Your task to perform on an android device: check data usage Image 0: 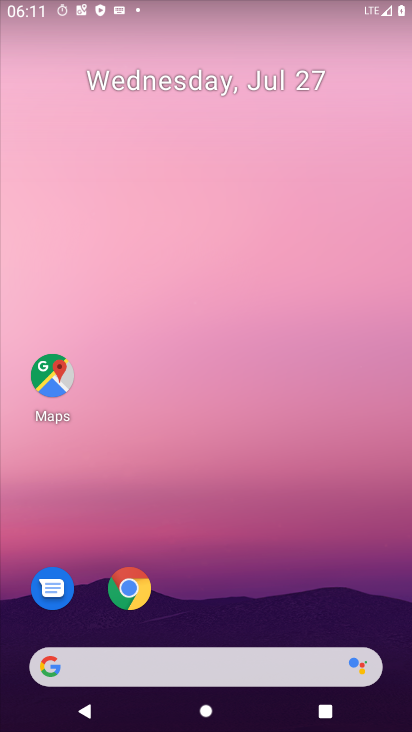
Step 0: drag from (319, 633) to (291, 5)
Your task to perform on an android device: check data usage Image 1: 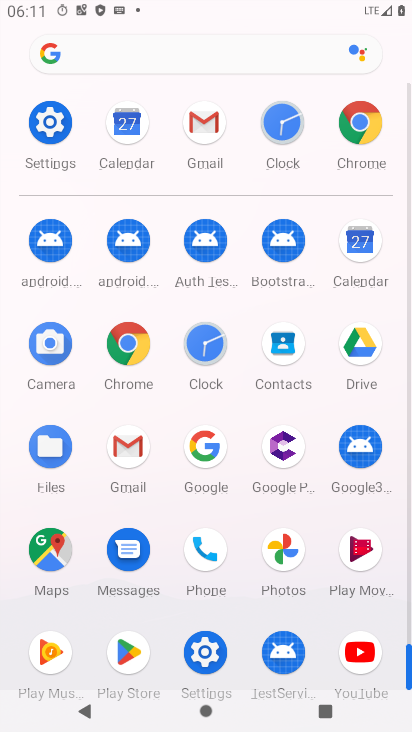
Step 1: click (48, 111)
Your task to perform on an android device: check data usage Image 2: 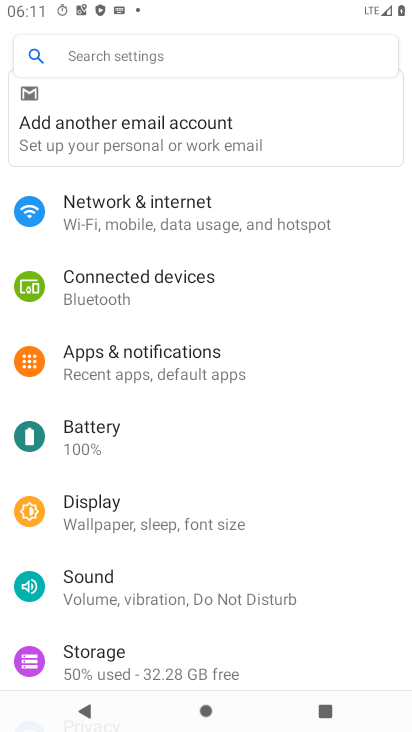
Step 2: click (246, 218)
Your task to perform on an android device: check data usage Image 3: 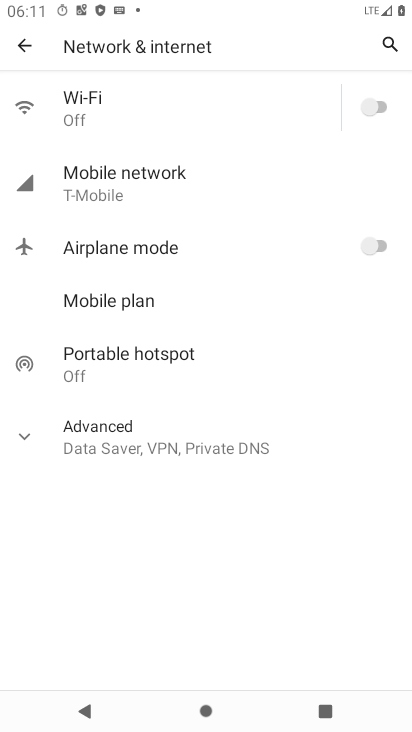
Step 3: click (141, 185)
Your task to perform on an android device: check data usage Image 4: 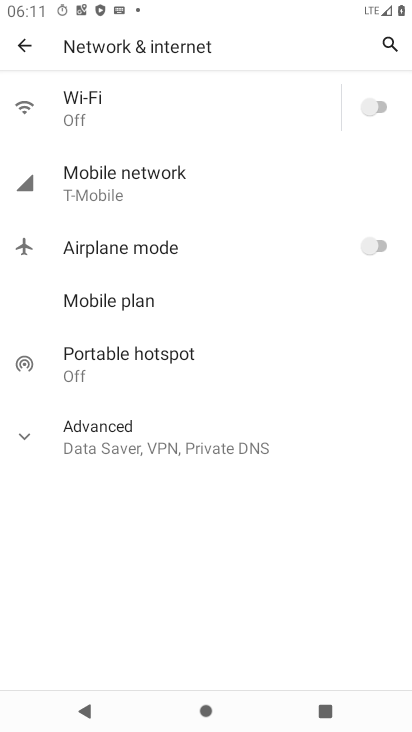
Step 4: task complete